Your task to perform on an android device: check out phone information Image 0: 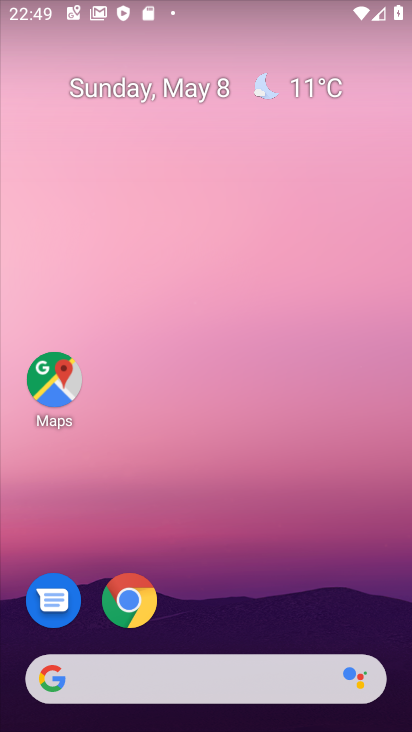
Step 0: drag from (179, 616) to (107, 43)
Your task to perform on an android device: check out phone information Image 1: 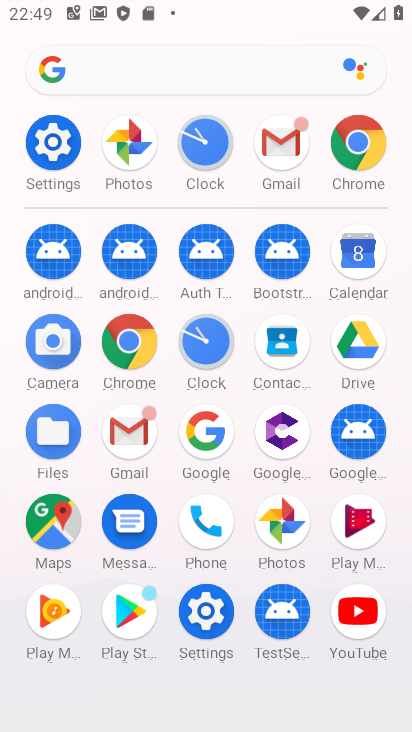
Step 1: click (56, 145)
Your task to perform on an android device: check out phone information Image 2: 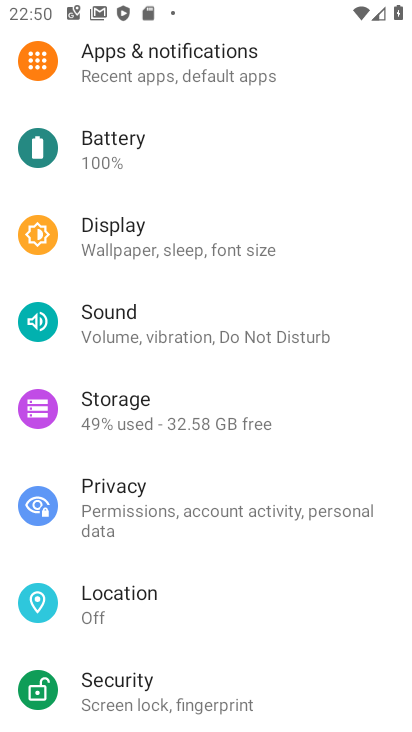
Step 2: drag from (95, 600) to (217, 36)
Your task to perform on an android device: check out phone information Image 3: 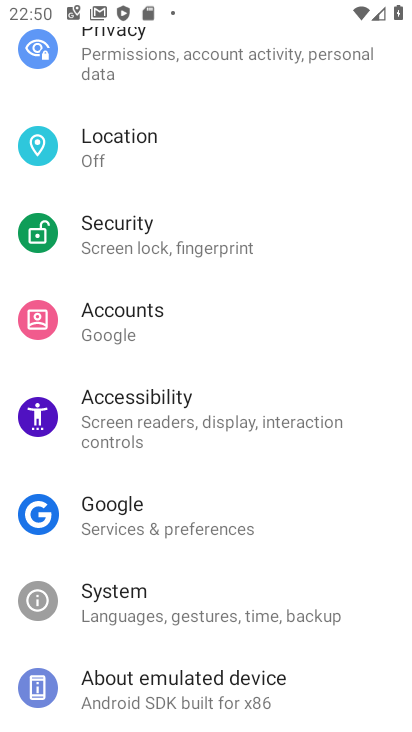
Step 3: drag from (163, 661) to (228, 146)
Your task to perform on an android device: check out phone information Image 4: 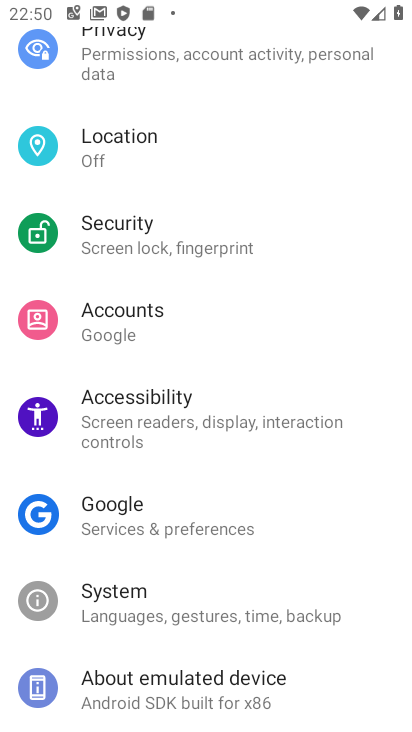
Step 4: click (177, 711)
Your task to perform on an android device: check out phone information Image 5: 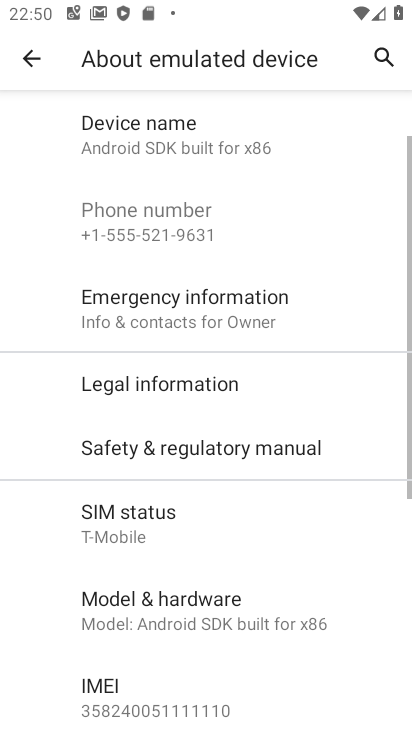
Step 5: task complete